Your task to perform on an android device: check battery use Image 0: 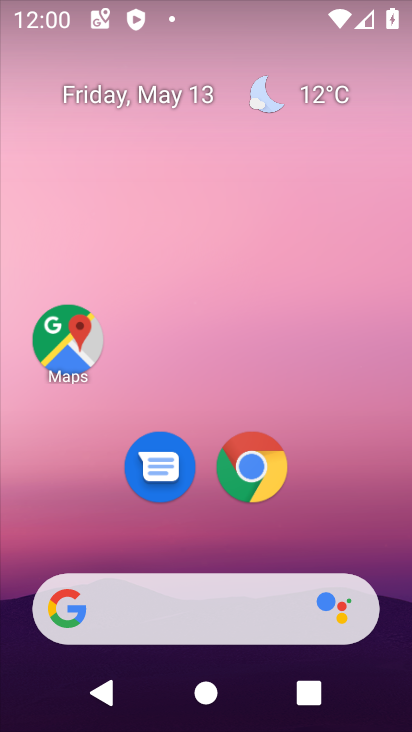
Step 0: drag from (349, 495) to (297, 4)
Your task to perform on an android device: check battery use Image 1: 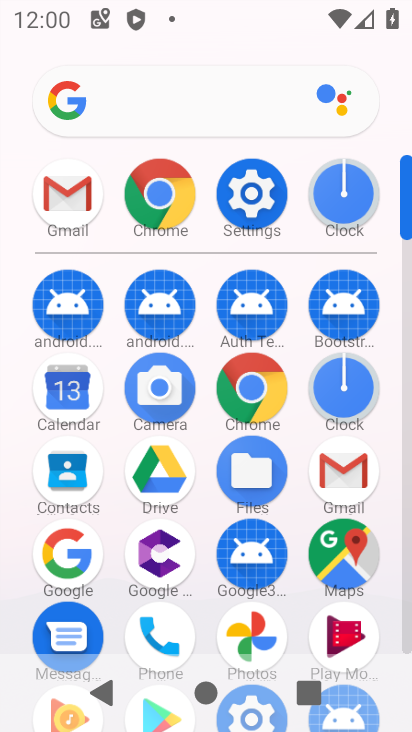
Step 1: drag from (22, 542) to (34, 266)
Your task to perform on an android device: check battery use Image 2: 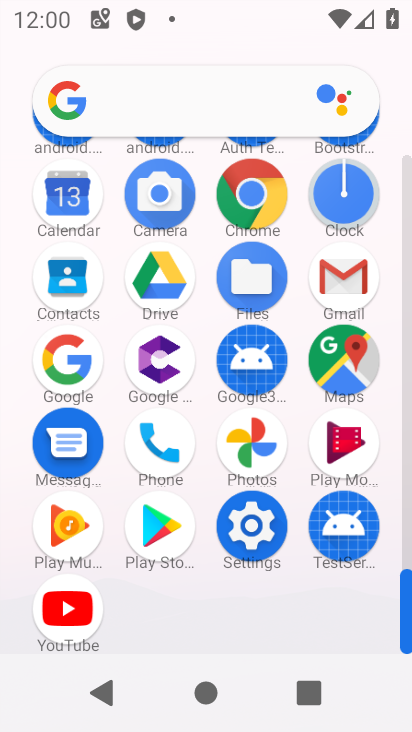
Step 2: click (248, 526)
Your task to perform on an android device: check battery use Image 3: 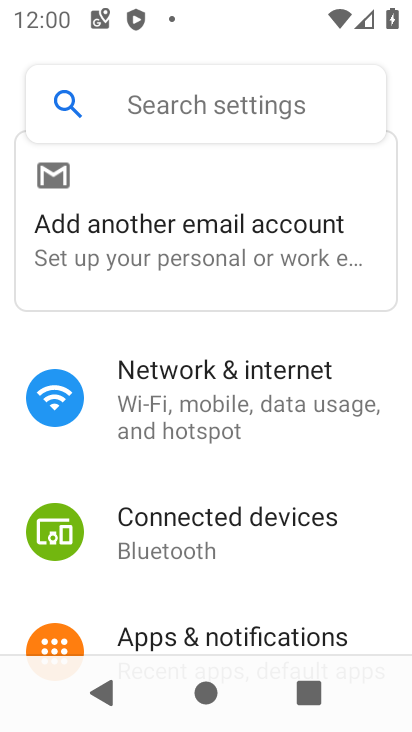
Step 3: drag from (248, 526) to (275, 195)
Your task to perform on an android device: check battery use Image 4: 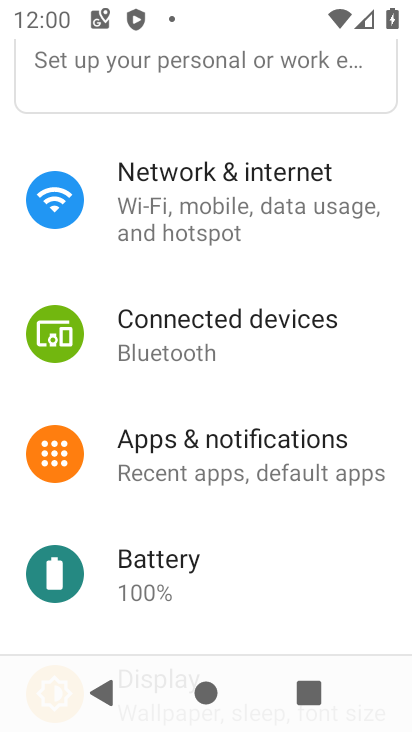
Step 4: drag from (263, 542) to (278, 209)
Your task to perform on an android device: check battery use Image 5: 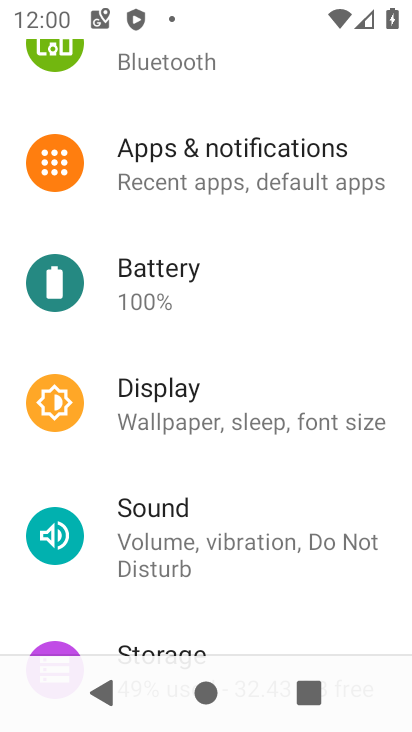
Step 5: click (166, 255)
Your task to perform on an android device: check battery use Image 6: 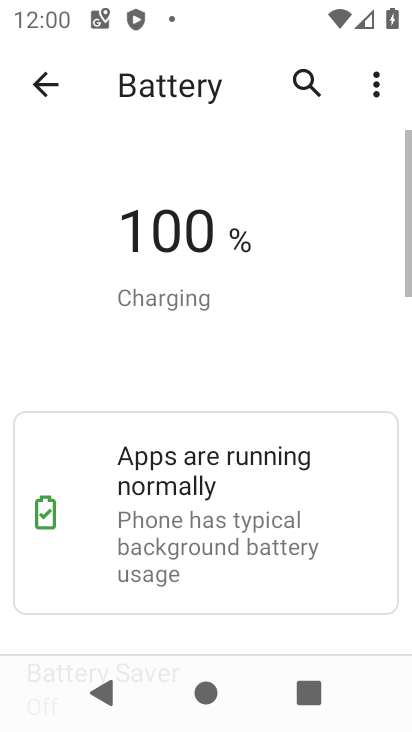
Step 6: drag from (248, 537) to (247, 148)
Your task to perform on an android device: check battery use Image 7: 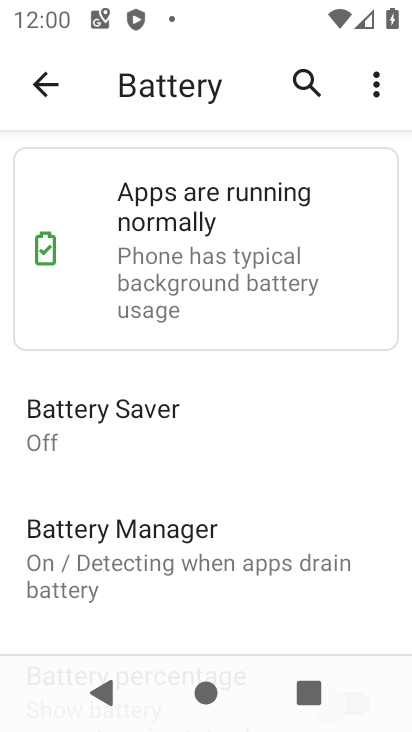
Step 7: drag from (236, 492) to (246, 137)
Your task to perform on an android device: check battery use Image 8: 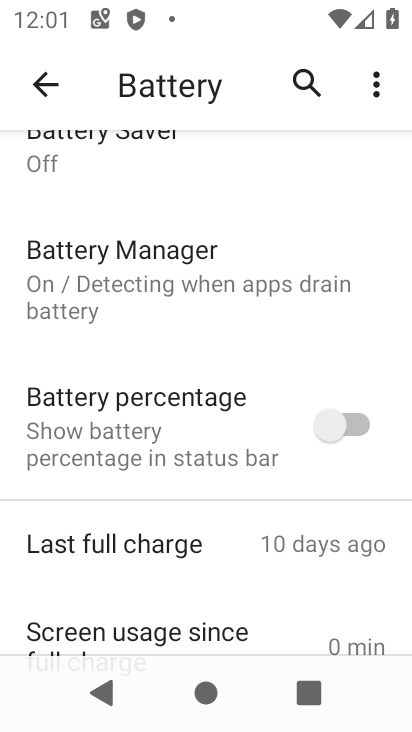
Step 8: drag from (176, 520) to (231, 171)
Your task to perform on an android device: check battery use Image 9: 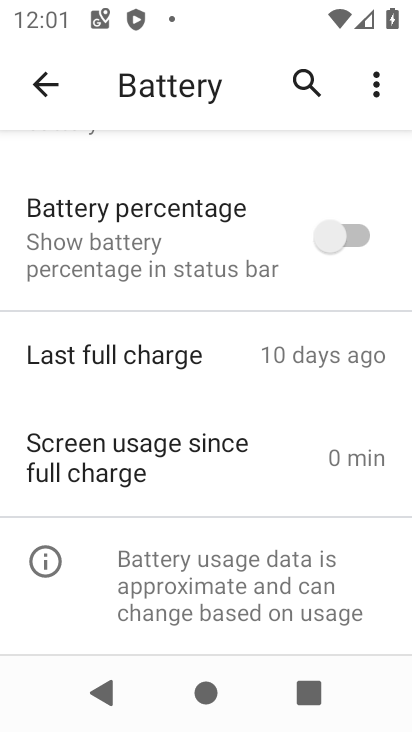
Step 9: drag from (221, 513) to (221, 190)
Your task to perform on an android device: check battery use Image 10: 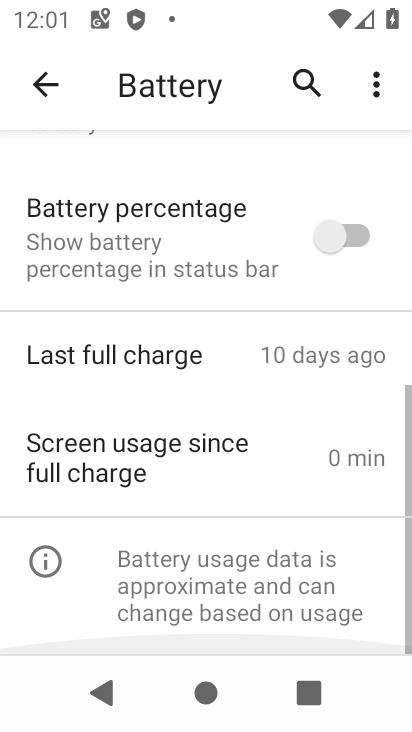
Step 10: drag from (221, 180) to (212, 617)
Your task to perform on an android device: check battery use Image 11: 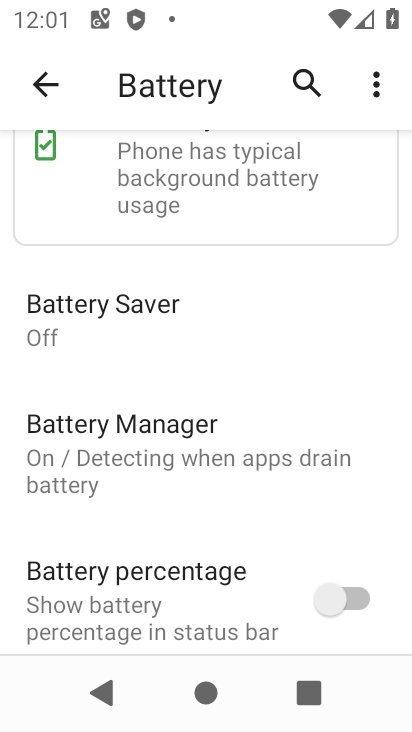
Step 11: drag from (200, 206) to (200, 583)
Your task to perform on an android device: check battery use Image 12: 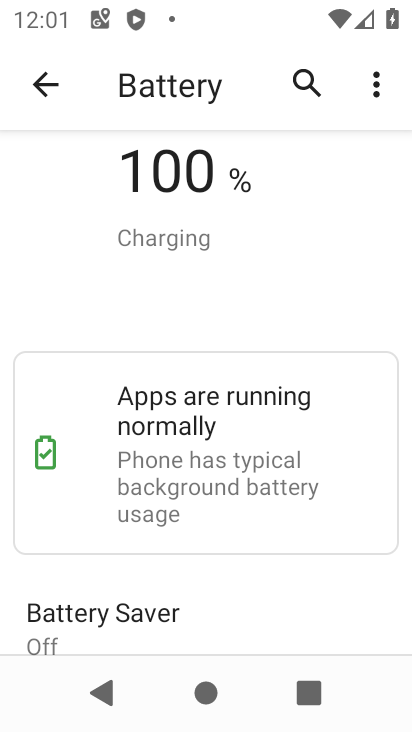
Step 12: drag from (190, 239) to (169, 517)
Your task to perform on an android device: check battery use Image 13: 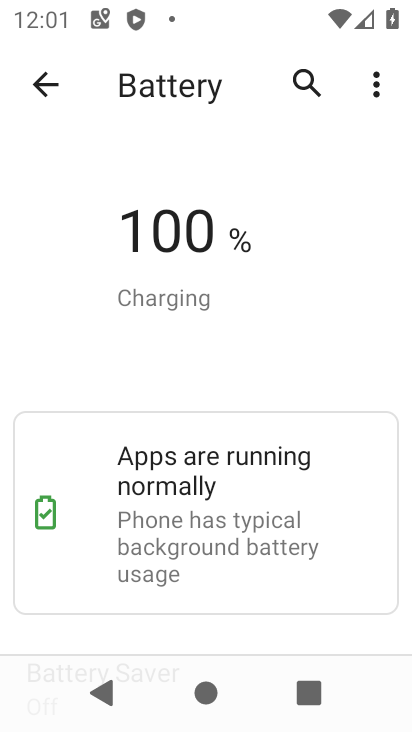
Step 13: drag from (201, 486) to (240, 125)
Your task to perform on an android device: check battery use Image 14: 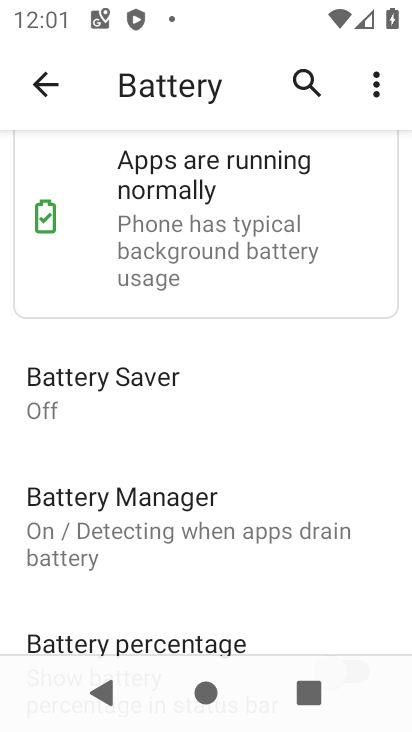
Step 14: drag from (372, 79) to (261, 128)
Your task to perform on an android device: check battery use Image 15: 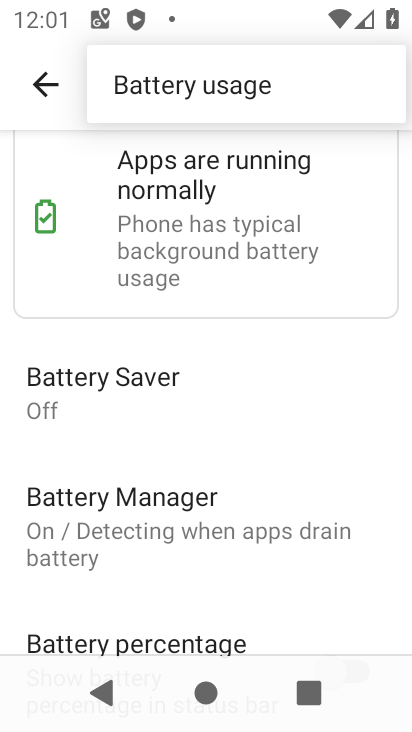
Step 15: click (241, 102)
Your task to perform on an android device: check battery use Image 16: 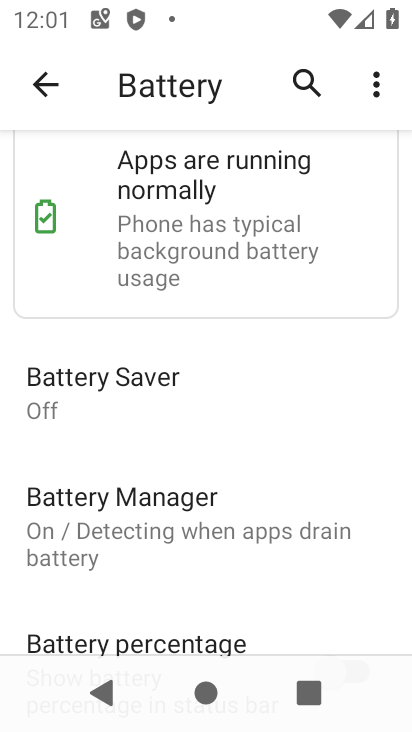
Step 16: task complete